Your task to perform on an android device: Open location settings Image 0: 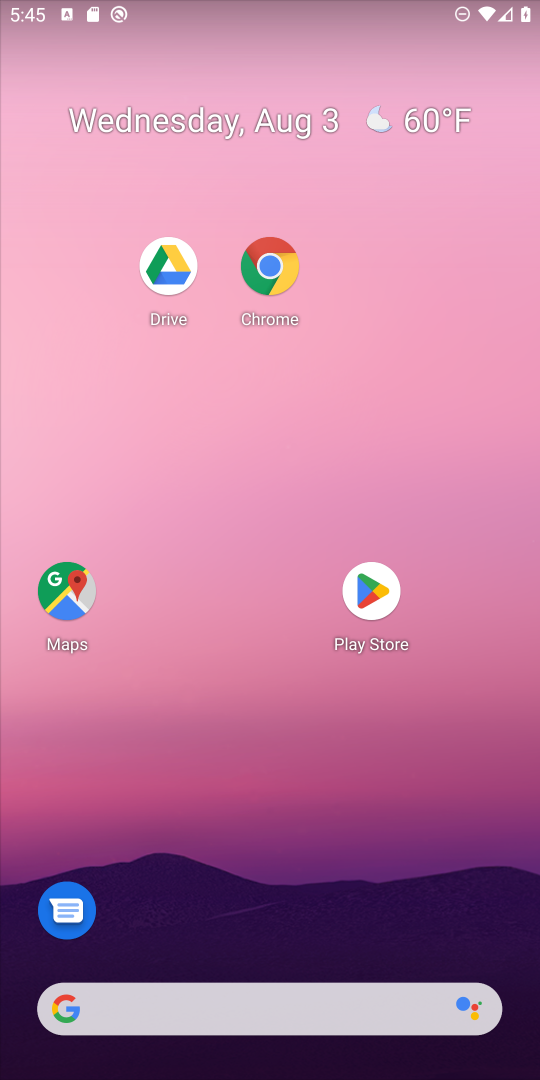
Step 0: drag from (383, 883) to (292, 1)
Your task to perform on an android device: Open location settings Image 1: 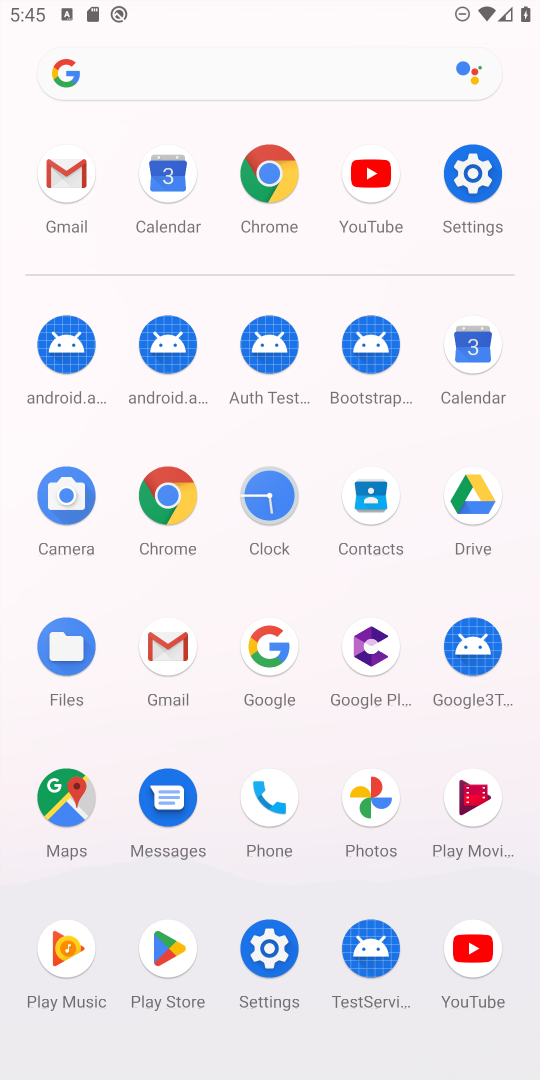
Step 1: click (471, 170)
Your task to perform on an android device: Open location settings Image 2: 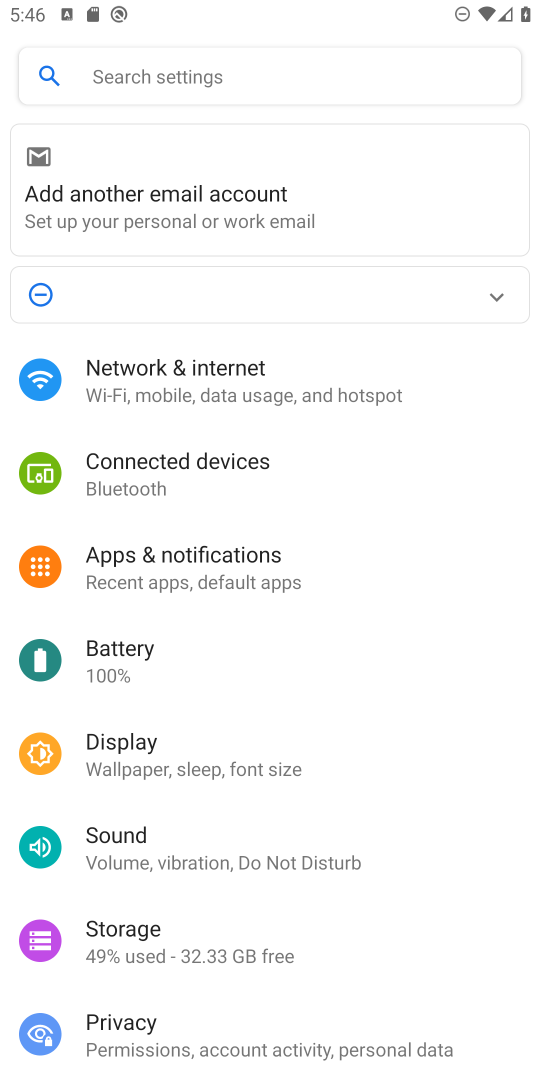
Step 2: drag from (227, 975) to (283, 247)
Your task to perform on an android device: Open location settings Image 3: 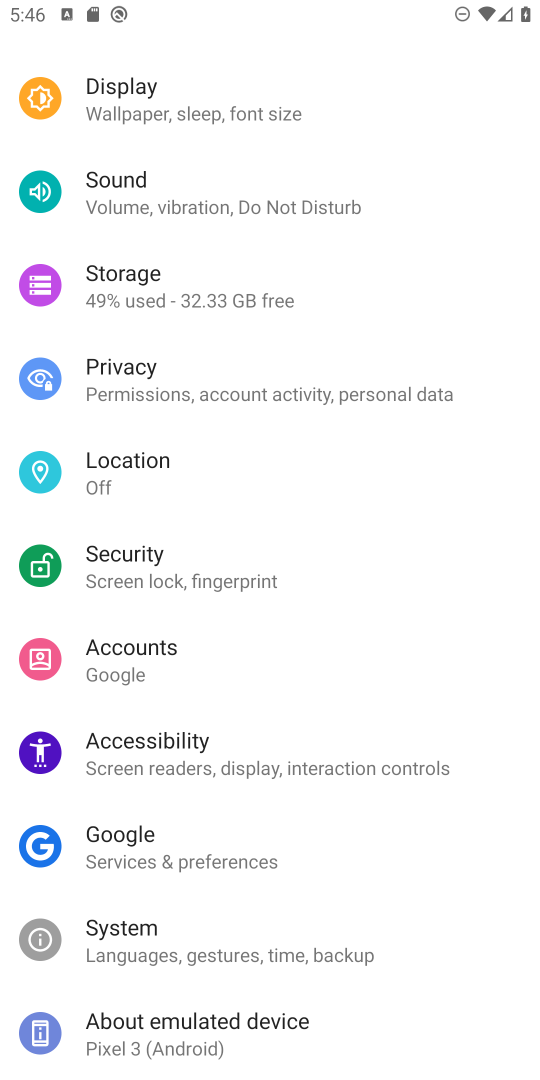
Step 3: click (149, 477)
Your task to perform on an android device: Open location settings Image 4: 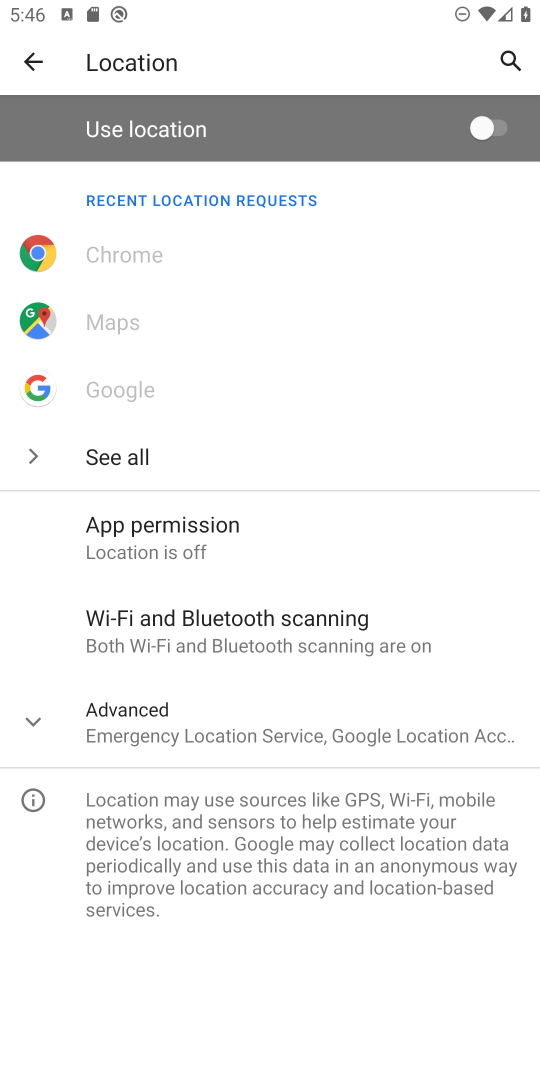
Step 4: task complete